Your task to perform on an android device: turn off notifications settings in the gmail app Image 0: 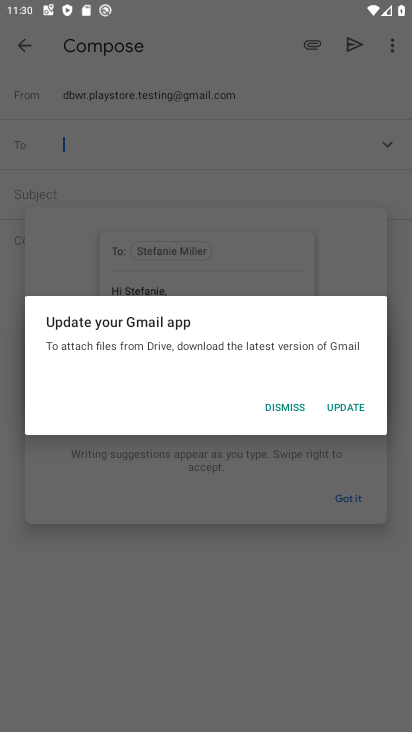
Step 0: press home button
Your task to perform on an android device: turn off notifications settings in the gmail app Image 1: 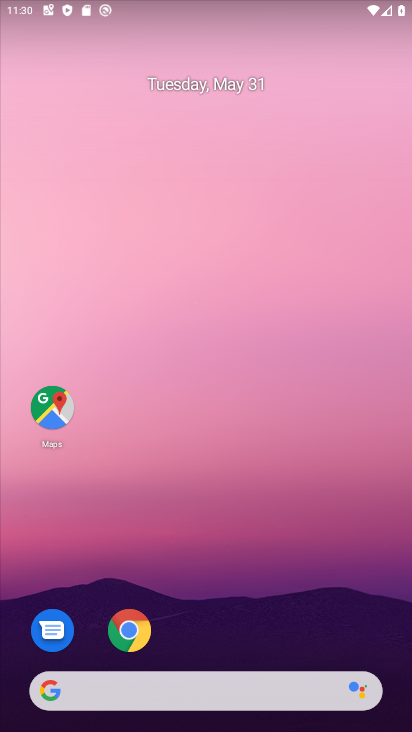
Step 1: drag from (208, 461) to (222, 178)
Your task to perform on an android device: turn off notifications settings in the gmail app Image 2: 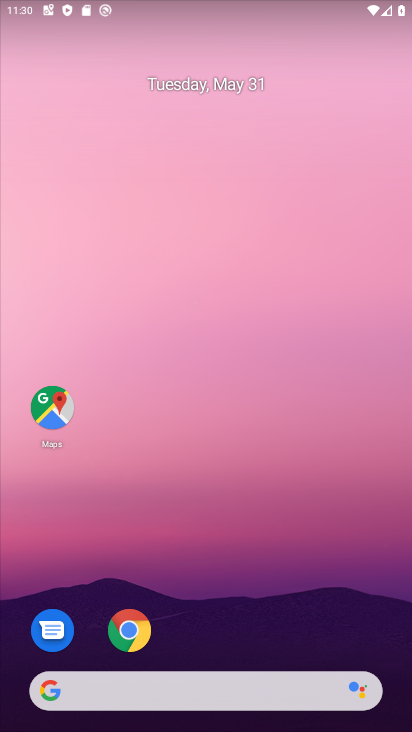
Step 2: drag from (246, 544) to (256, 127)
Your task to perform on an android device: turn off notifications settings in the gmail app Image 3: 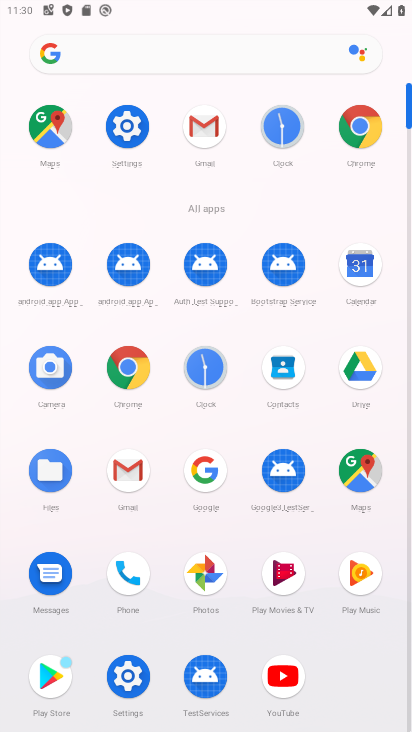
Step 3: click (208, 122)
Your task to perform on an android device: turn off notifications settings in the gmail app Image 4: 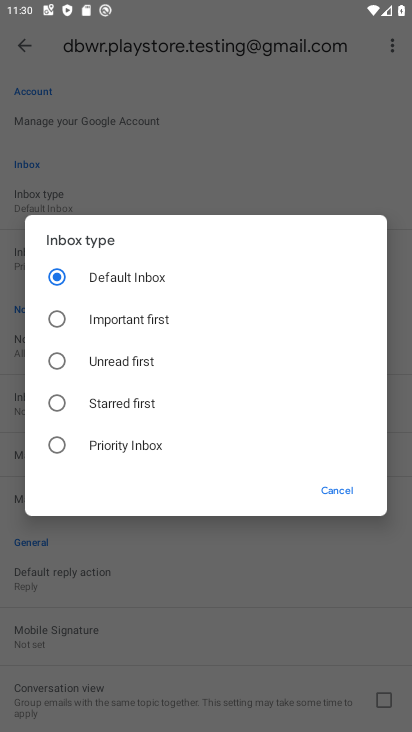
Step 4: press back button
Your task to perform on an android device: turn off notifications settings in the gmail app Image 5: 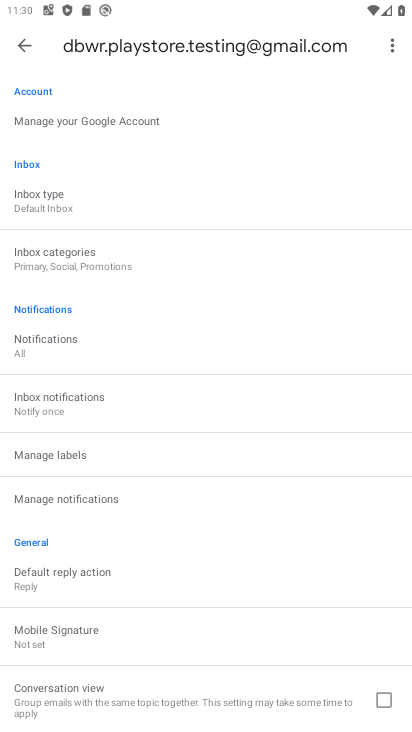
Step 5: click (70, 498)
Your task to perform on an android device: turn off notifications settings in the gmail app Image 6: 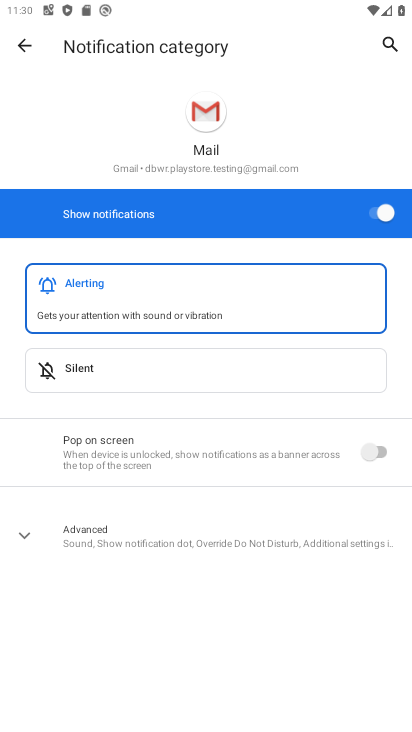
Step 6: click (384, 205)
Your task to perform on an android device: turn off notifications settings in the gmail app Image 7: 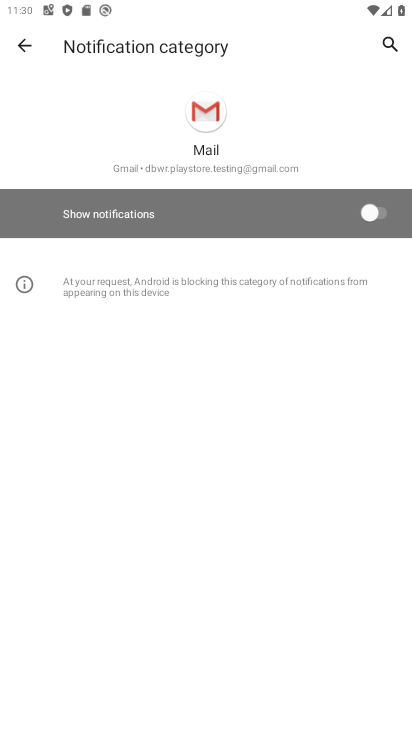
Step 7: task complete